Your task to perform on an android device: open app "eBay: The shopping marketplace" (install if not already installed) and go to login screen Image 0: 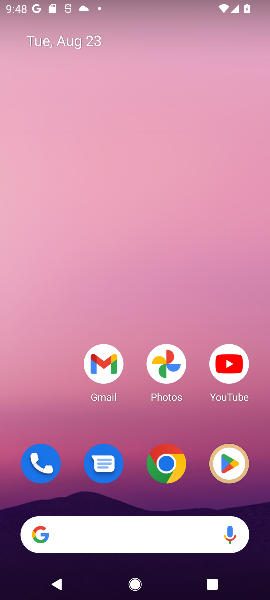
Step 0: press home button
Your task to perform on an android device: open app "eBay: The shopping marketplace" (install if not already installed) and go to login screen Image 1: 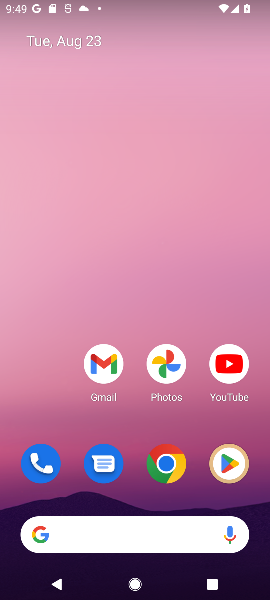
Step 1: press home button
Your task to perform on an android device: open app "eBay: The shopping marketplace" (install if not already installed) and go to login screen Image 2: 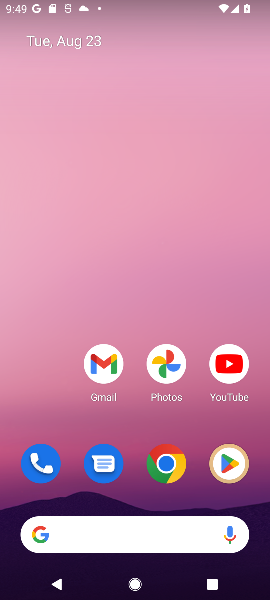
Step 2: click (232, 460)
Your task to perform on an android device: open app "eBay: The shopping marketplace" (install if not already installed) and go to login screen Image 3: 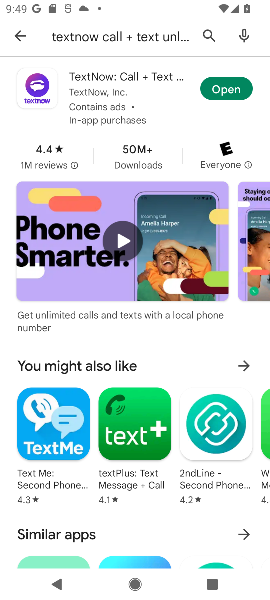
Step 3: click (207, 38)
Your task to perform on an android device: open app "eBay: The shopping marketplace" (install if not already installed) and go to login screen Image 4: 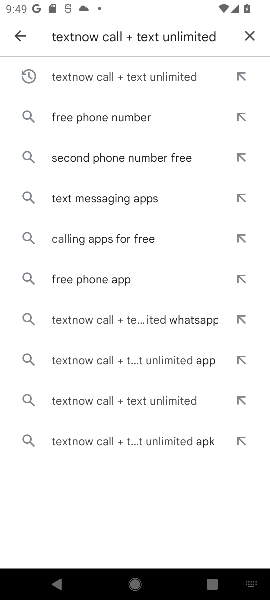
Step 4: click (251, 36)
Your task to perform on an android device: open app "eBay: The shopping marketplace" (install if not already installed) and go to login screen Image 5: 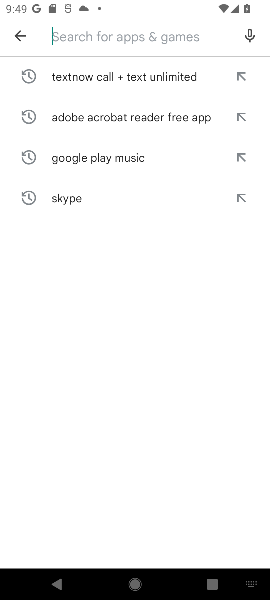
Step 5: type "eBay: The shopping marketplace"
Your task to perform on an android device: open app "eBay: The shopping marketplace" (install if not already installed) and go to login screen Image 6: 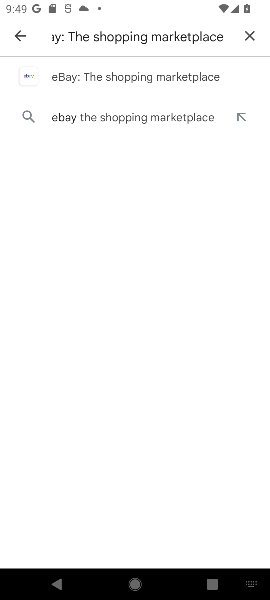
Step 6: click (145, 73)
Your task to perform on an android device: open app "eBay: The shopping marketplace" (install if not already installed) and go to login screen Image 7: 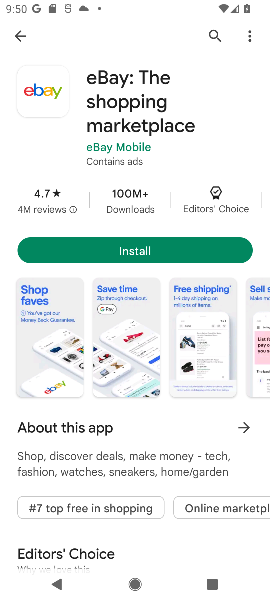
Step 7: click (139, 250)
Your task to perform on an android device: open app "eBay: The shopping marketplace" (install if not already installed) and go to login screen Image 8: 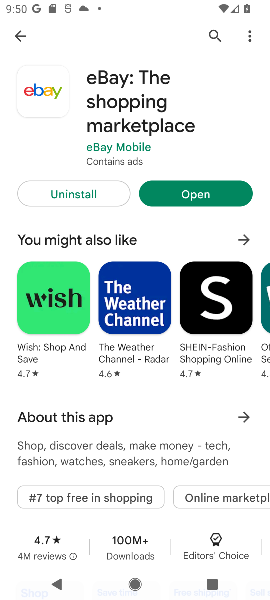
Step 8: click (209, 196)
Your task to perform on an android device: open app "eBay: The shopping marketplace" (install if not already installed) and go to login screen Image 9: 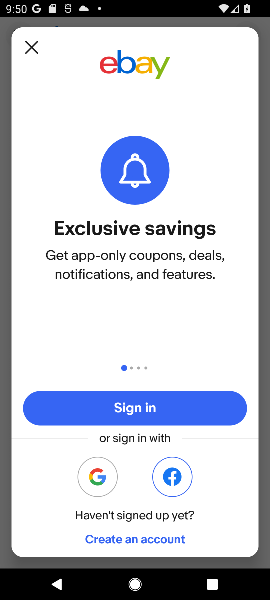
Step 9: click (88, 486)
Your task to perform on an android device: open app "eBay: The shopping marketplace" (install if not already installed) and go to login screen Image 10: 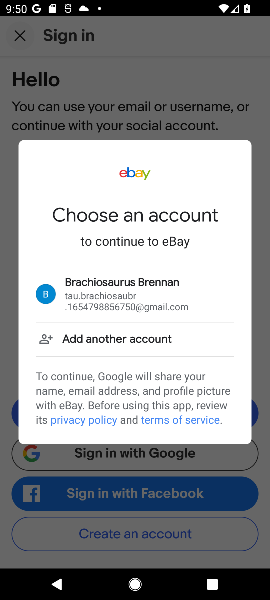
Step 10: click (132, 283)
Your task to perform on an android device: open app "eBay: The shopping marketplace" (install if not already installed) and go to login screen Image 11: 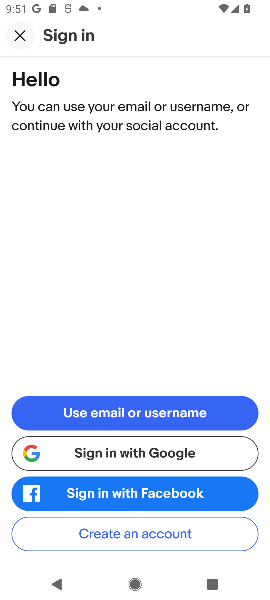
Step 11: click (134, 452)
Your task to perform on an android device: open app "eBay: The shopping marketplace" (install if not already installed) and go to login screen Image 12: 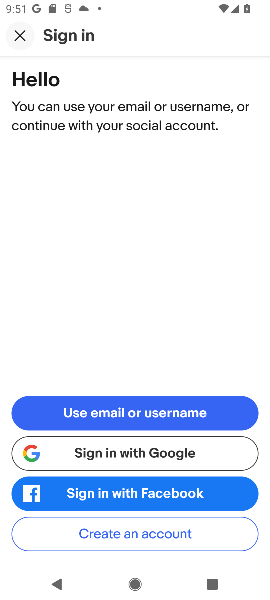
Step 12: task complete